Your task to perform on an android device: Open calendar and show me the fourth week of next month Image 0: 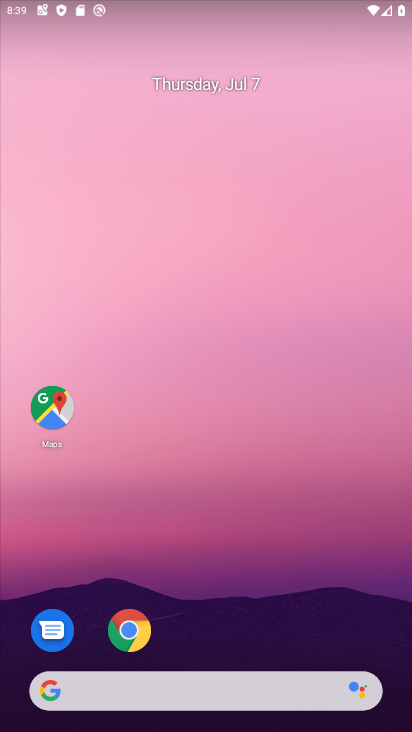
Step 0: drag from (189, 644) to (199, 328)
Your task to perform on an android device: Open calendar and show me the fourth week of next month Image 1: 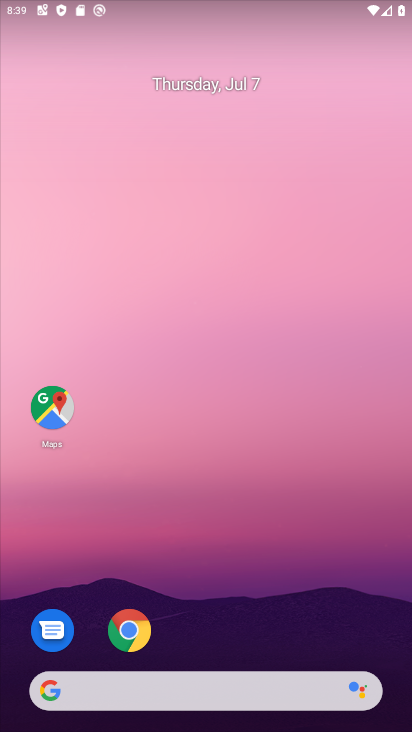
Step 1: drag from (193, 640) to (237, 157)
Your task to perform on an android device: Open calendar and show me the fourth week of next month Image 2: 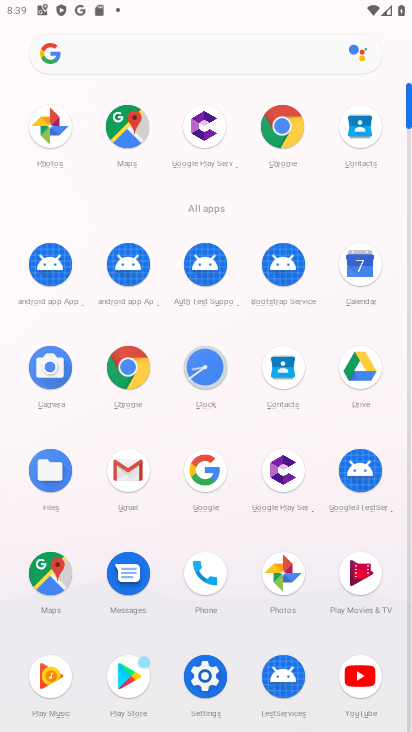
Step 2: click (356, 262)
Your task to perform on an android device: Open calendar and show me the fourth week of next month Image 3: 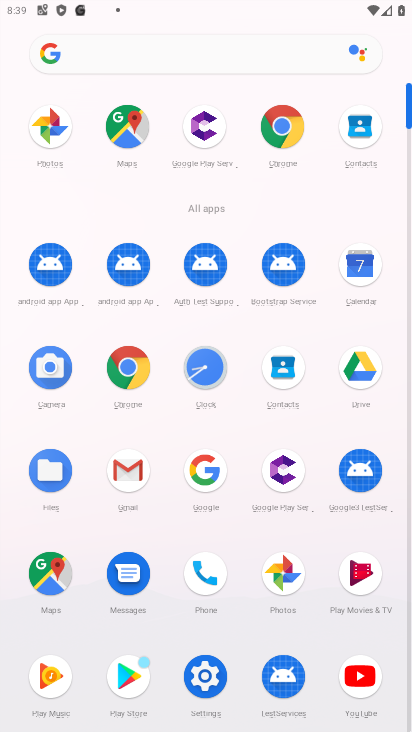
Step 3: click (357, 263)
Your task to perform on an android device: Open calendar and show me the fourth week of next month Image 4: 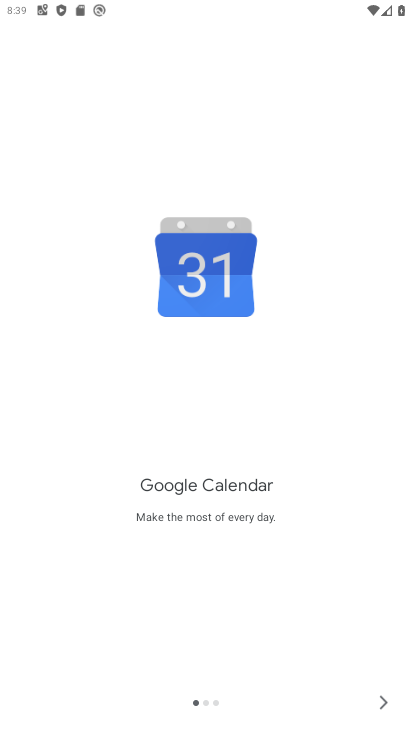
Step 4: click (376, 701)
Your task to perform on an android device: Open calendar and show me the fourth week of next month Image 5: 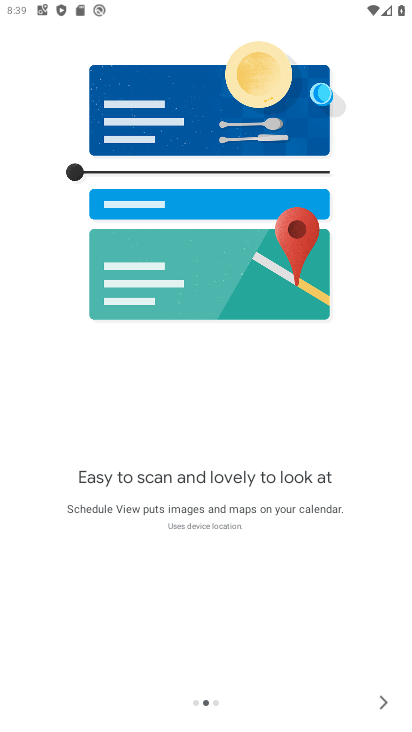
Step 5: click (386, 697)
Your task to perform on an android device: Open calendar and show me the fourth week of next month Image 6: 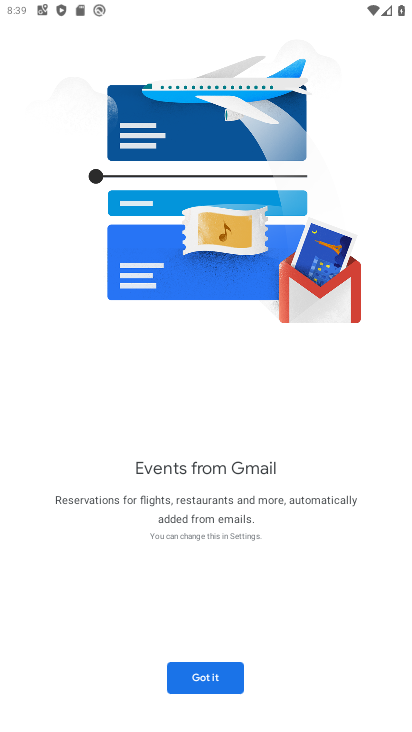
Step 6: click (200, 667)
Your task to perform on an android device: Open calendar and show me the fourth week of next month Image 7: 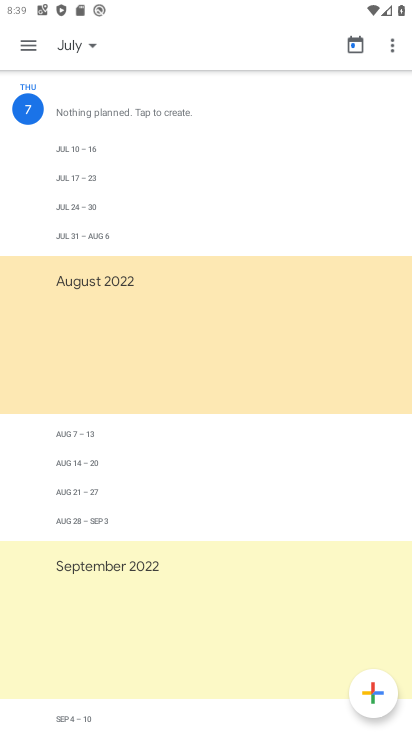
Step 7: drag from (251, 669) to (303, 422)
Your task to perform on an android device: Open calendar and show me the fourth week of next month Image 8: 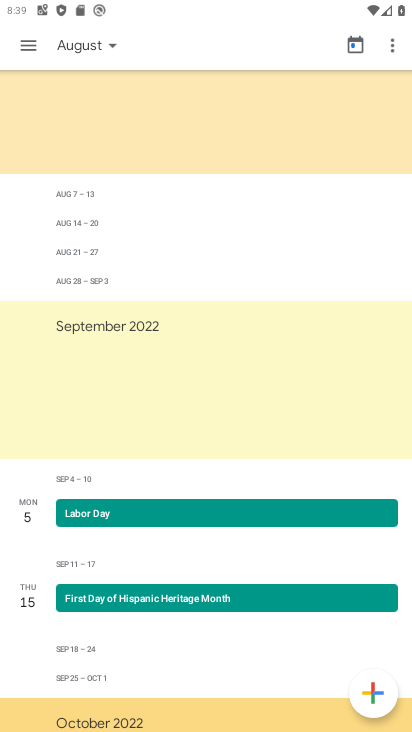
Step 8: drag from (203, 652) to (207, 424)
Your task to perform on an android device: Open calendar and show me the fourth week of next month Image 9: 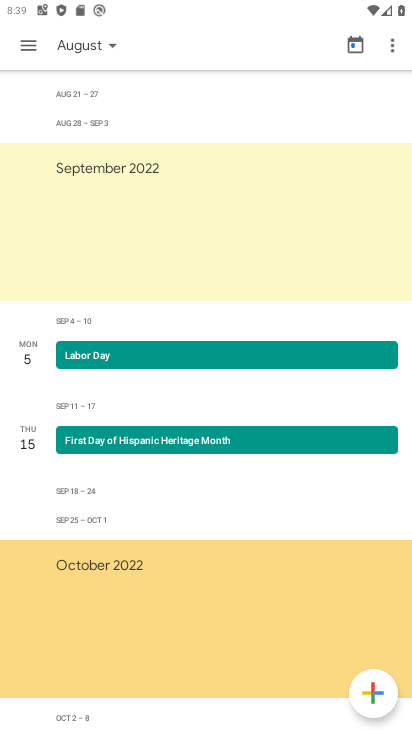
Step 9: click (267, 254)
Your task to perform on an android device: Open calendar and show me the fourth week of next month Image 10: 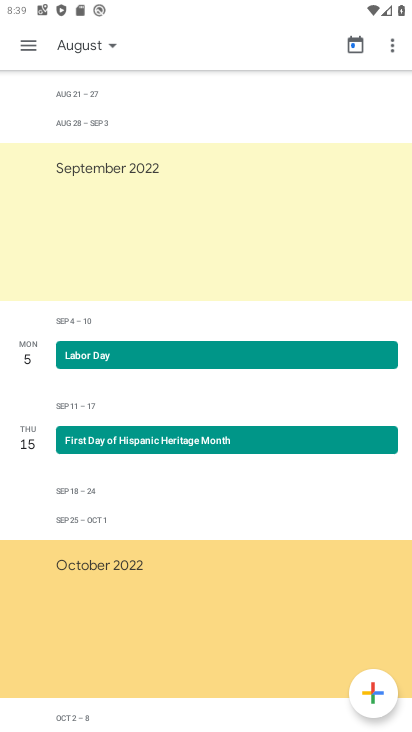
Step 10: drag from (222, 651) to (216, 426)
Your task to perform on an android device: Open calendar and show me the fourth week of next month Image 11: 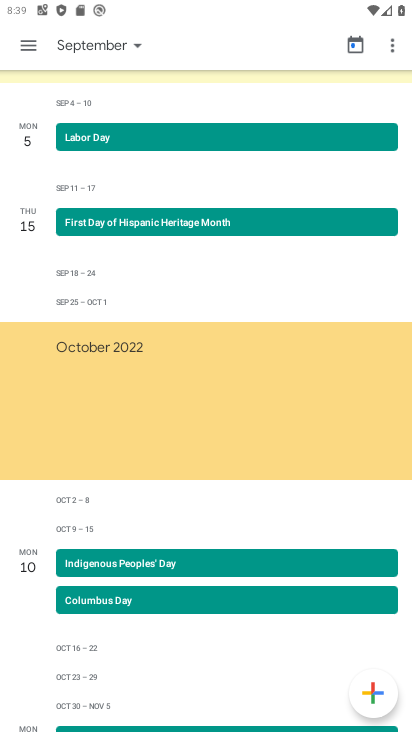
Step 11: drag from (200, 255) to (277, 644)
Your task to perform on an android device: Open calendar and show me the fourth week of next month Image 12: 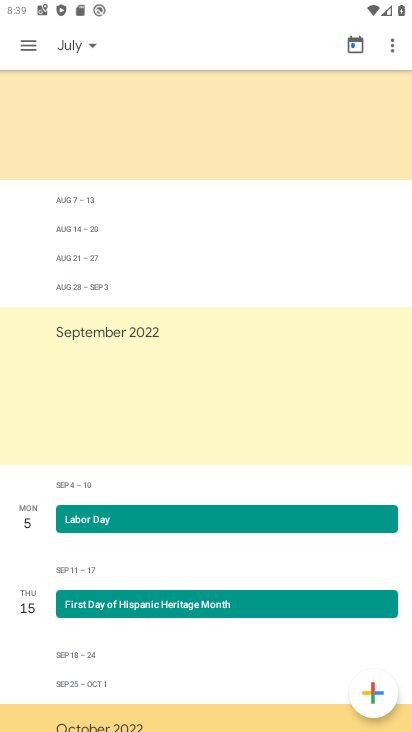
Step 12: click (90, 48)
Your task to perform on an android device: Open calendar and show me the fourth week of next month Image 13: 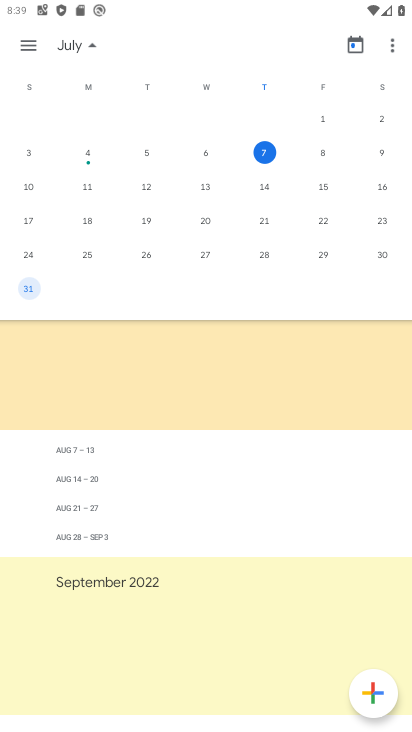
Step 13: drag from (377, 210) to (3, 251)
Your task to perform on an android device: Open calendar and show me the fourth week of next month Image 14: 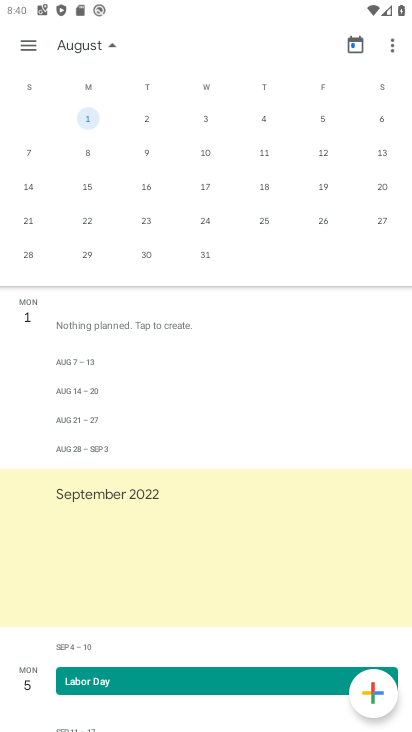
Step 14: click (269, 219)
Your task to perform on an android device: Open calendar and show me the fourth week of next month Image 15: 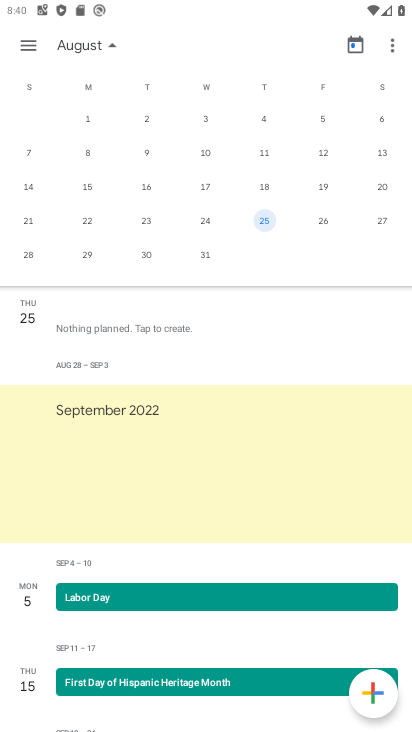
Step 15: task complete